Your task to perform on an android device: uninstall "Paramount+ | Peak Streaming" Image 0: 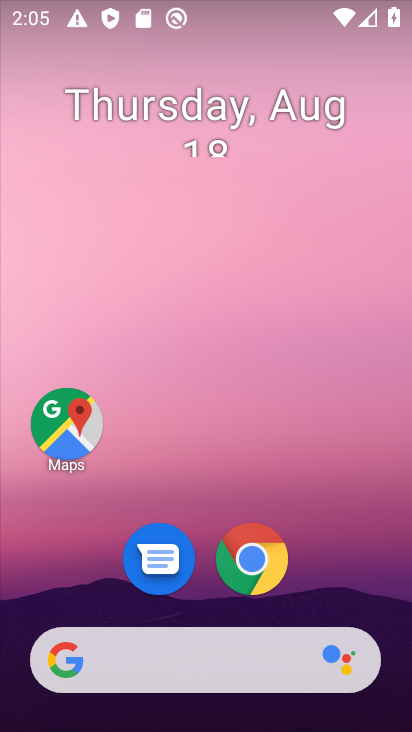
Step 0: drag from (188, 627) to (84, 49)
Your task to perform on an android device: uninstall "Paramount+ | Peak Streaming" Image 1: 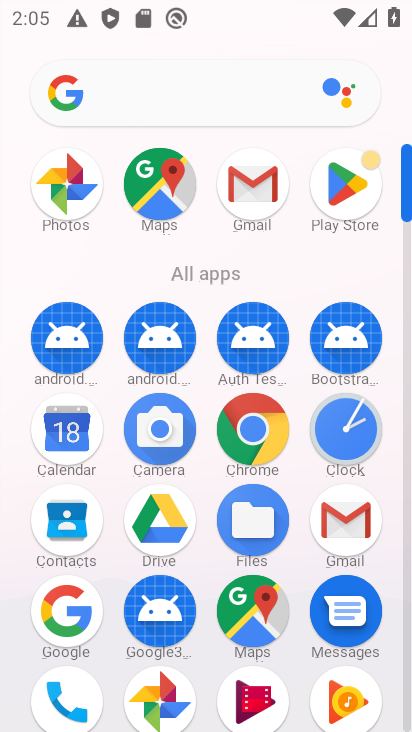
Step 1: click (362, 210)
Your task to perform on an android device: uninstall "Paramount+ | Peak Streaming" Image 2: 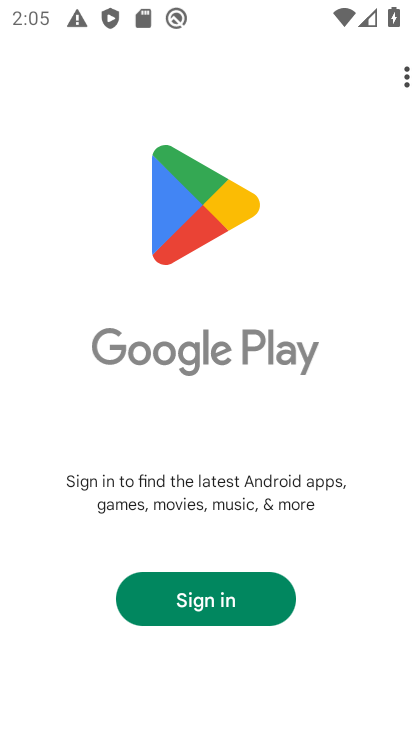
Step 2: click (217, 603)
Your task to perform on an android device: uninstall "Paramount+ | Peak Streaming" Image 3: 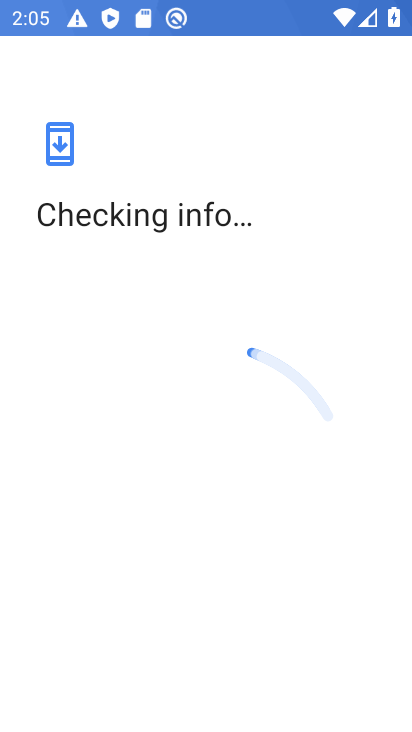
Step 3: click (218, 593)
Your task to perform on an android device: uninstall "Paramount+ | Peak Streaming" Image 4: 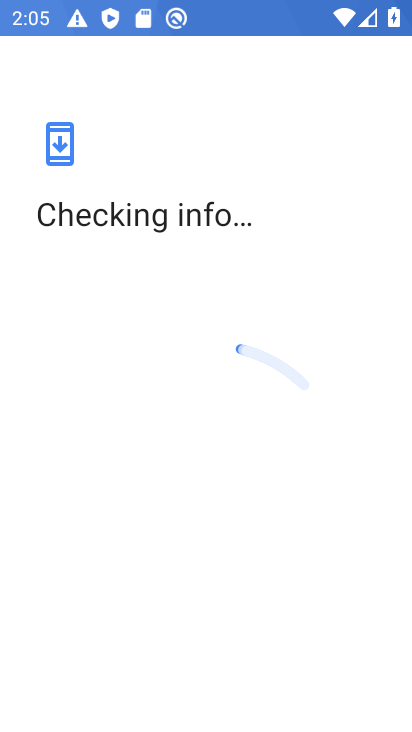
Step 4: task complete